Your task to perform on an android device: turn off location history Image 0: 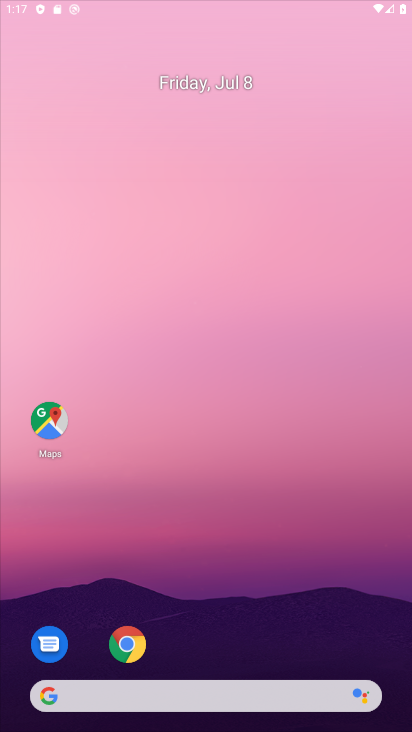
Step 0: press home button
Your task to perform on an android device: turn off location history Image 1: 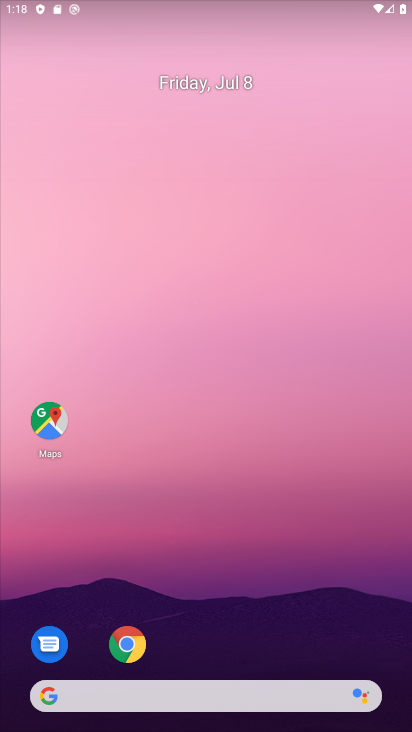
Step 1: press home button
Your task to perform on an android device: turn off location history Image 2: 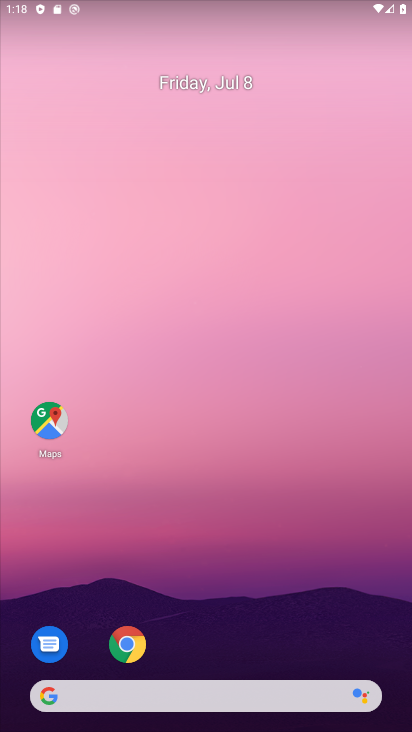
Step 2: drag from (293, 582) to (292, 57)
Your task to perform on an android device: turn off location history Image 3: 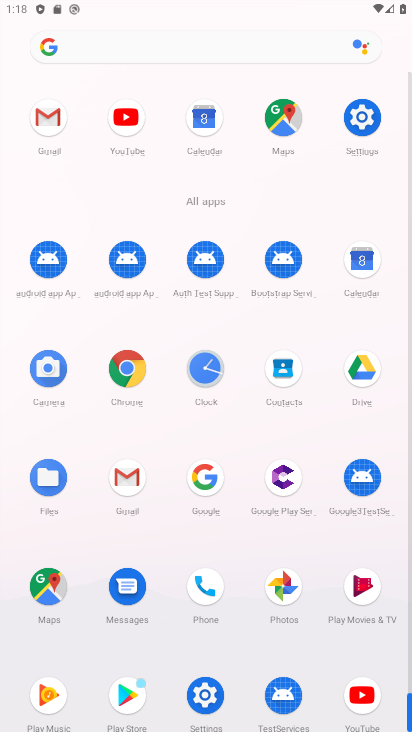
Step 3: click (351, 118)
Your task to perform on an android device: turn off location history Image 4: 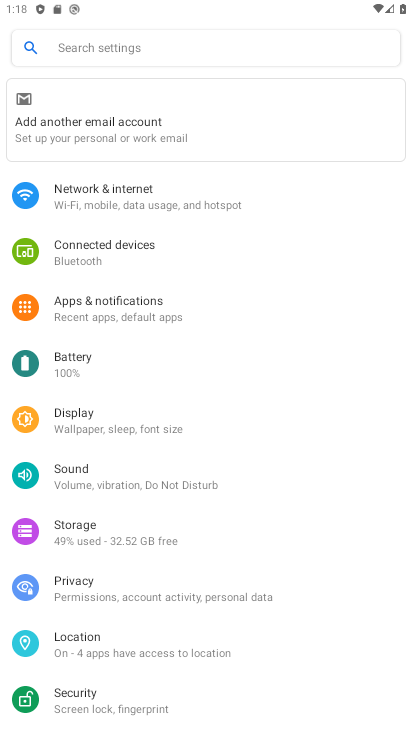
Step 4: click (106, 641)
Your task to perform on an android device: turn off location history Image 5: 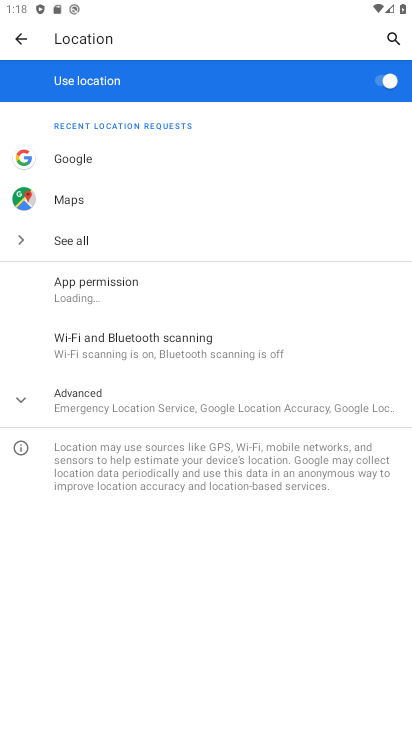
Step 5: click (20, 401)
Your task to perform on an android device: turn off location history Image 6: 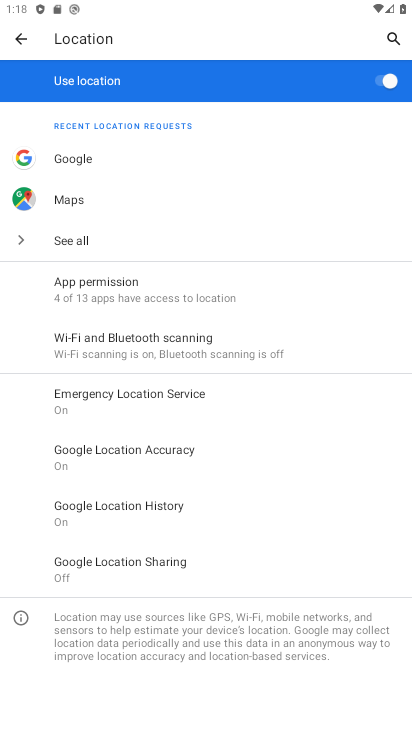
Step 6: click (138, 512)
Your task to perform on an android device: turn off location history Image 7: 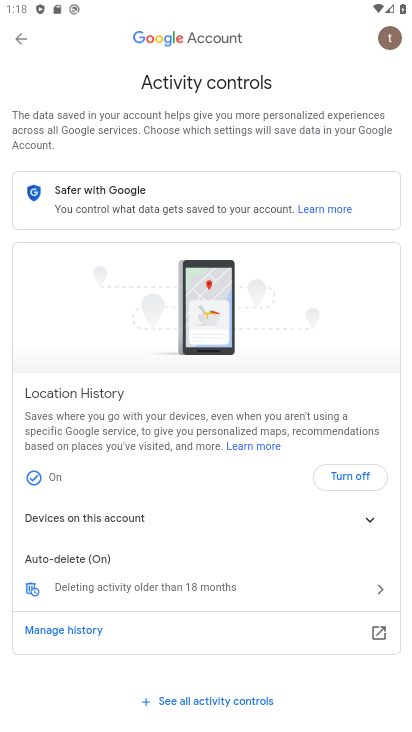
Step 7: click (349, 473)
Your task to perform on an android device: turn off location history Image 8: 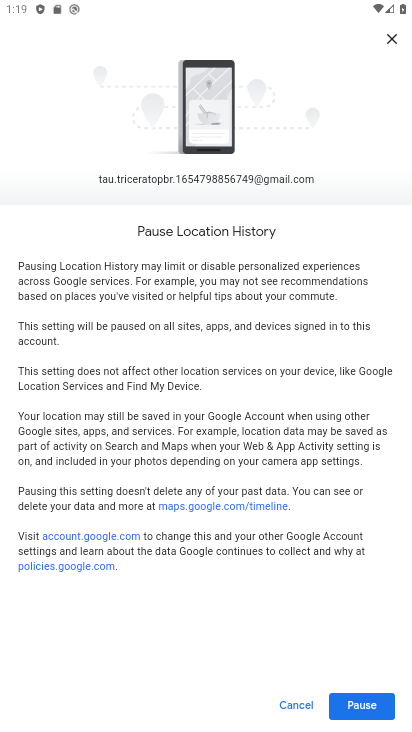
Step 8: click (353, 700)
Your task to perform on an android device: turn off location history Image 9: 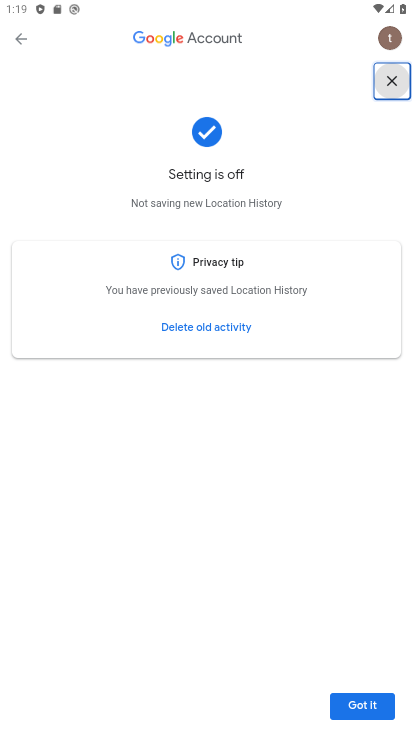
Step 9: click (371, 704)
Your task to perform on an android device: turn off location history Image 10: 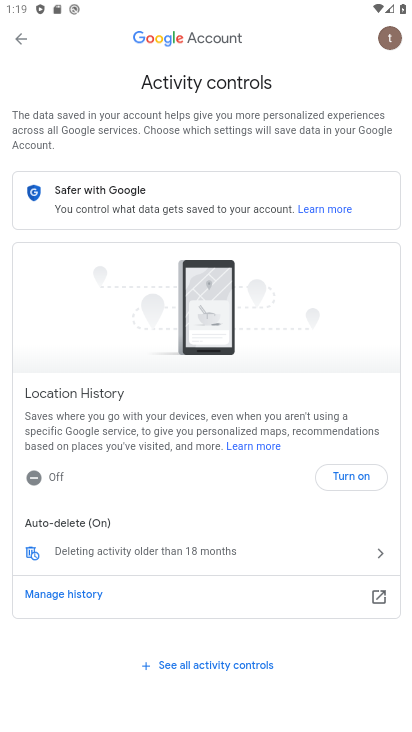
Step 10: task complete